Your task to perform on an android device: set default search engine in the chrome app Image 0: 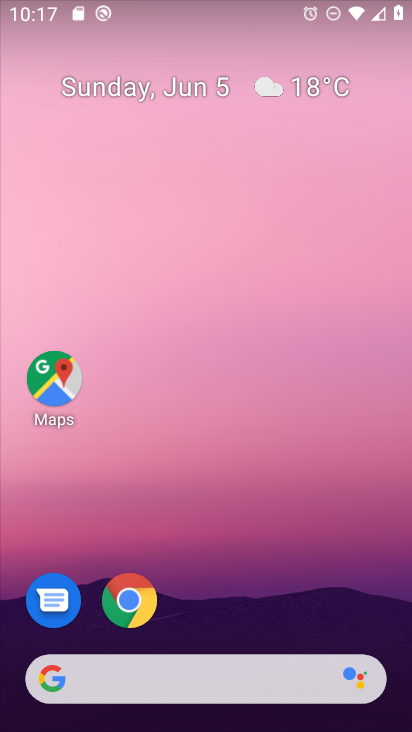
Step 0: click (131, 601)
Your task to perform on an android device: set default search engine in the chrome app Image 1: 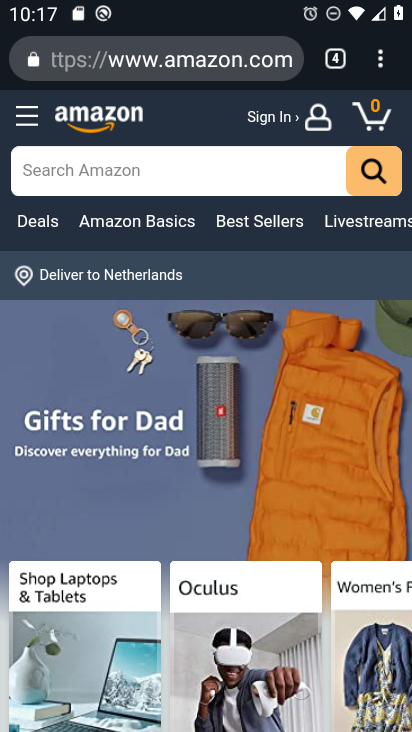
Step 1: click (382, 57)
Your task to perform on an android device: set default search engine in the chrome app Image 2: 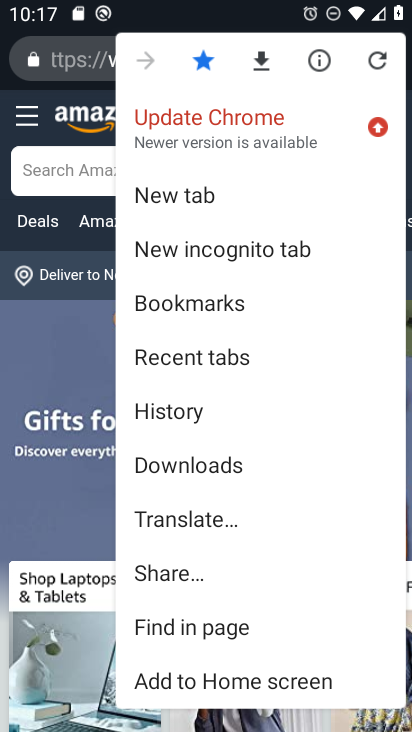
Step 2: drag from (292, 518) to (296, 242)
Your task to perform on an android device: set default search engine in the chrome app Image 3: 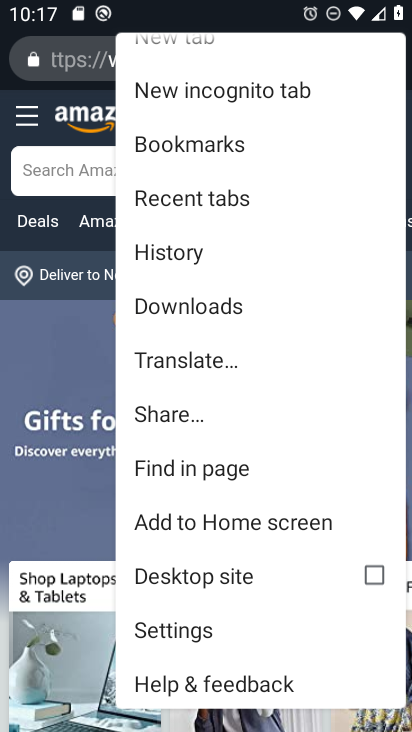
Step 3: click (234, 624)
Your task to perform on an android device: set default search engine in the chrome app Image 4: 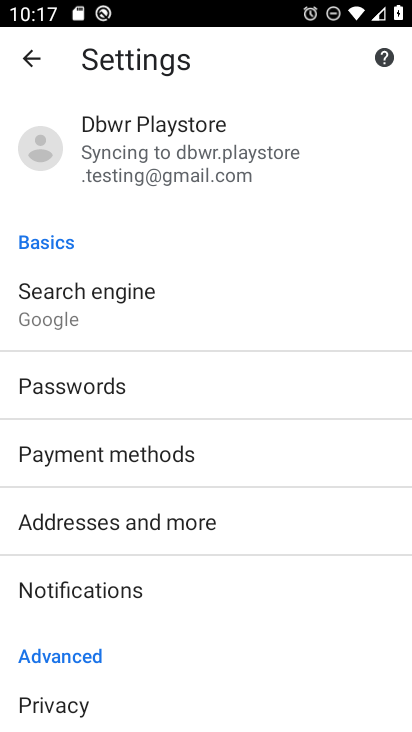
Step 4: click (173, 312)
Your task to perform on an android device: set default search engine in the chrome app Image 5: 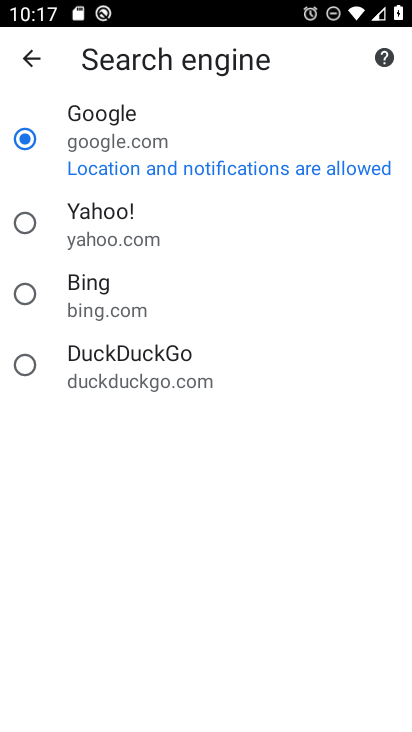
Step 5: task complete